Your task to perform on an android device: Open Google Chrome Image 0: 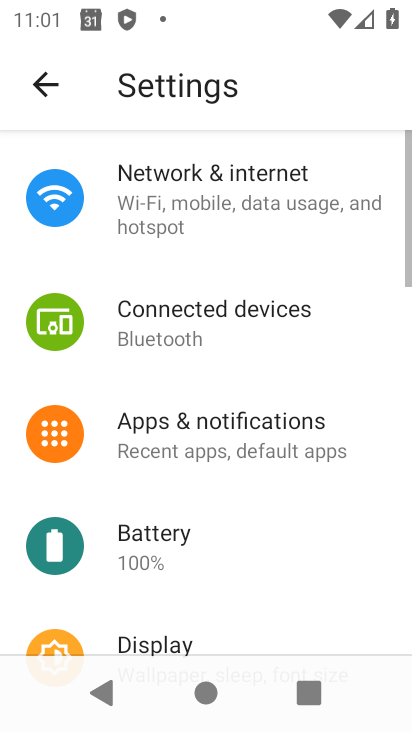
Step 0: press home button
Your task to perform on an android device: Open Google Chrome Image 1: 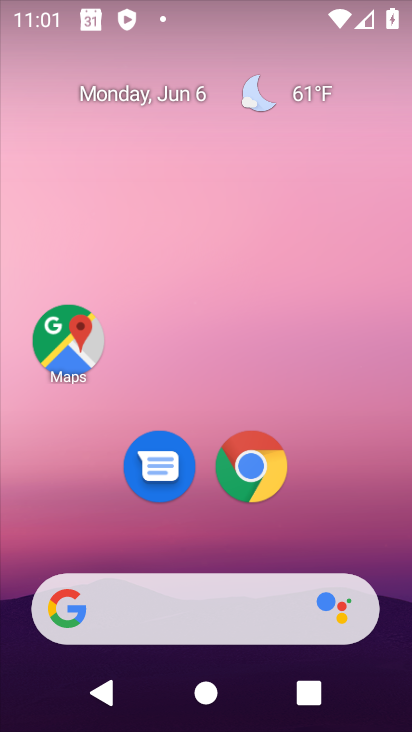
Step 1: click (269, 507)
Your task to perform on an android device: Open Google Chrome Image 2: 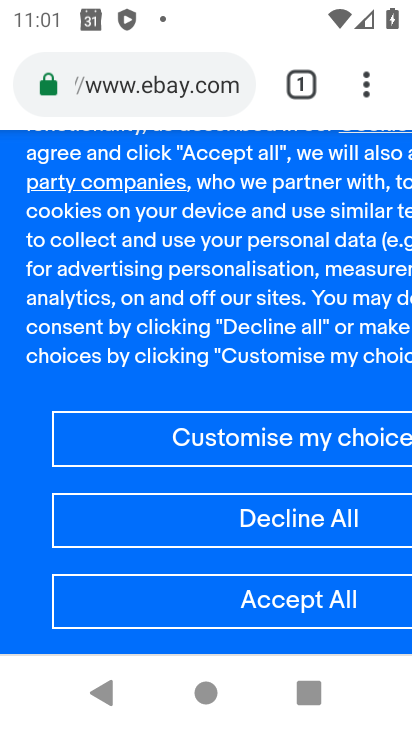
Step 2: task complete